Your task to perform on an android device: Do I have any events this weekend? Image 0: 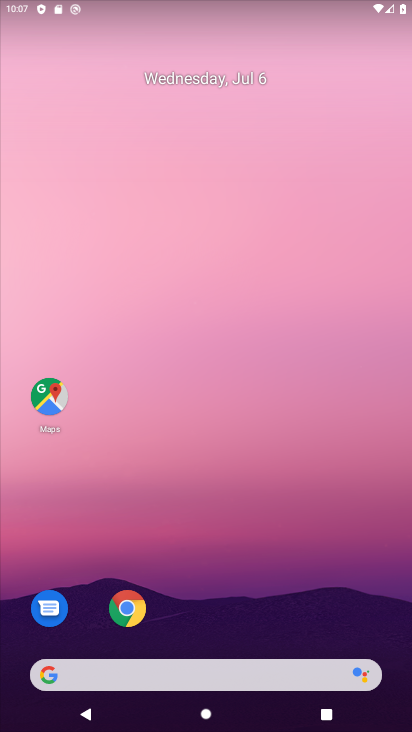
Step 0: drag from (215, 662) to (124, 214)
Your task to perform on an android device: Do I have any events this weekend? Image 1: 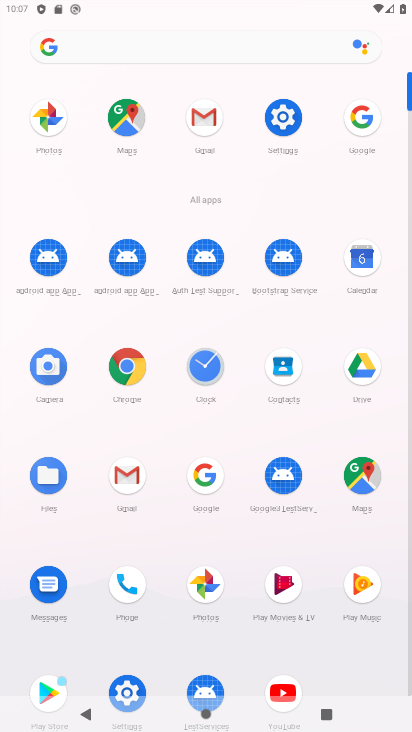
Step 1: click (355, 252)
Your task to perform on an android device: Do I have any events this weekend? Image 2: 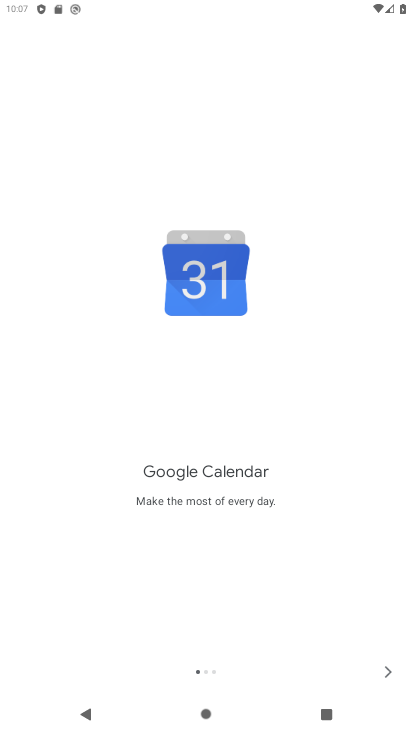
Step 2: click (392, 673)
Your task to perform on an android device: Do I have any events this weekend? Image 3: 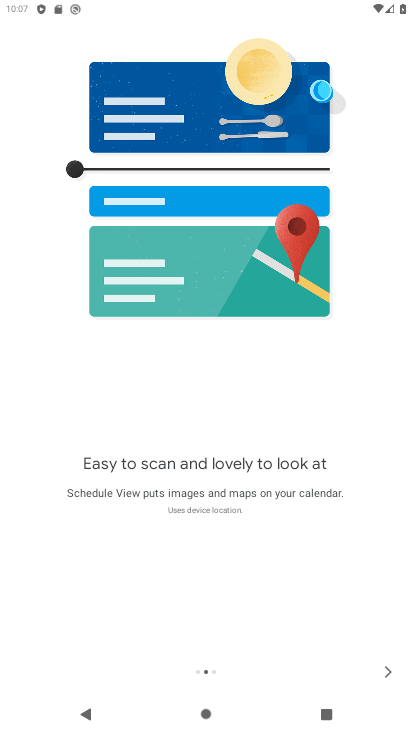
Step 3: click (392, 673)
Your task to perform on an android device: Do I have any events this weekend? Image 4: 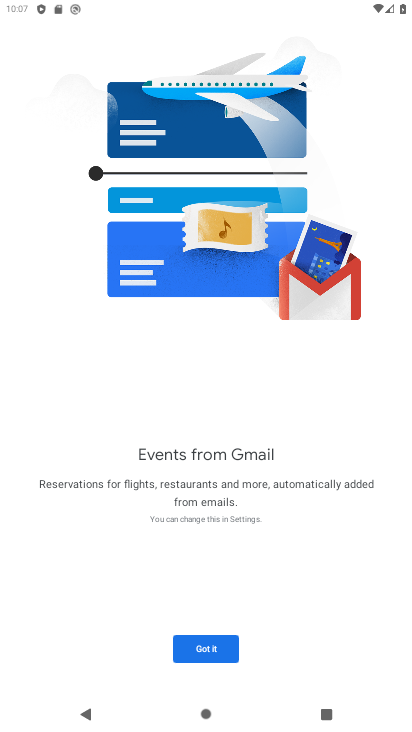
Step 4: click (205, 651)
Your task to perform on an android device: Do I have any events this weekend? Image 5: 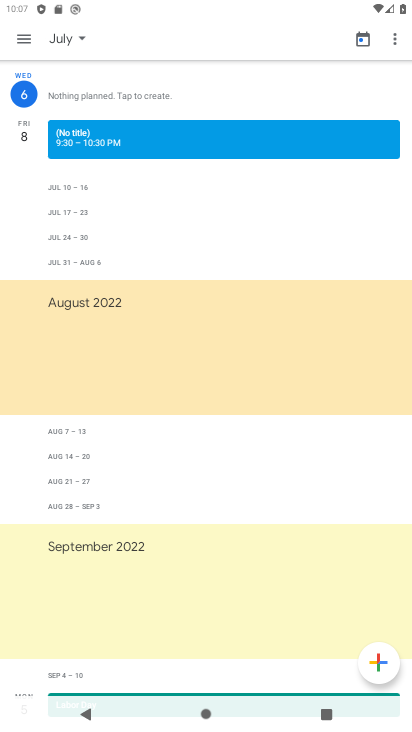
Step 5: click (18, 34)
Your task to perform on an android device: Do I have any events this weekend? Image 6: 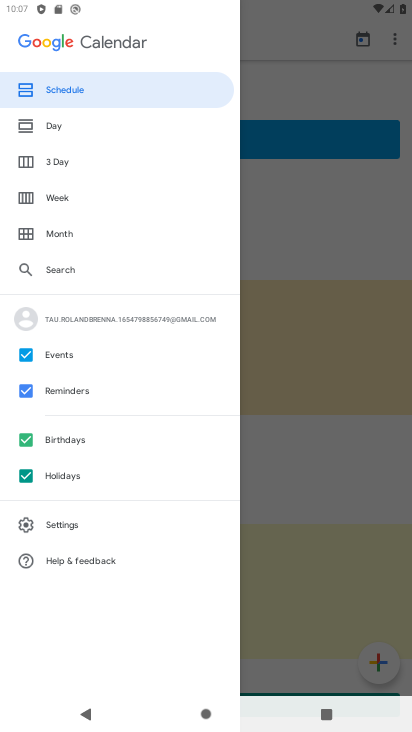
Step 6: click (44, 187)
Your task to perform on an android device: Do I have any events this weekend? Image 7: 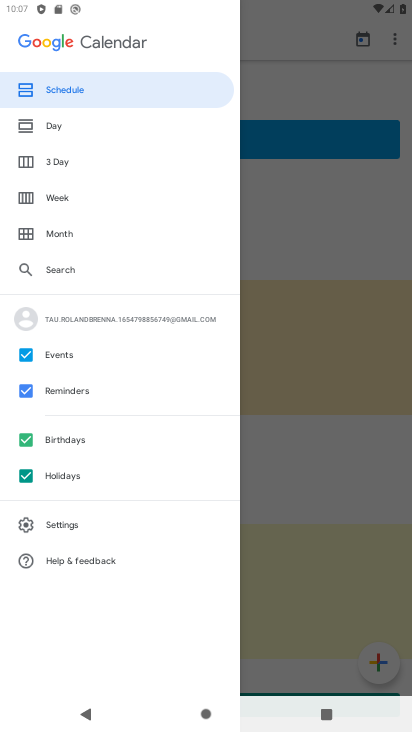
Step 7: click (49, 195)
Your task to perform on an android device: Do I have any events this weekend? Image 8: 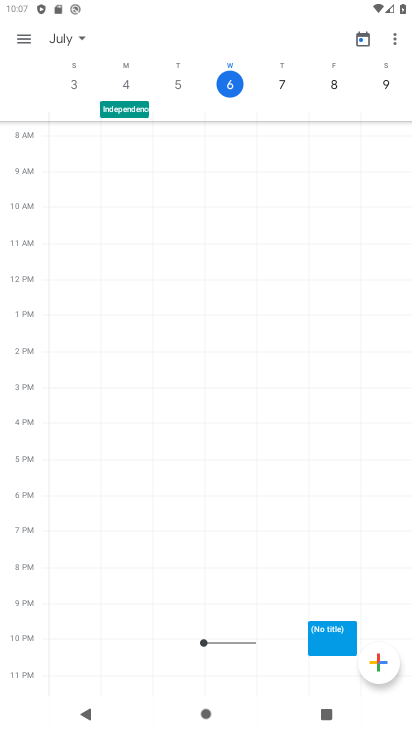
Step 8: task complete